Your task to perform on an android device: create a new album in the google photos Image 0: 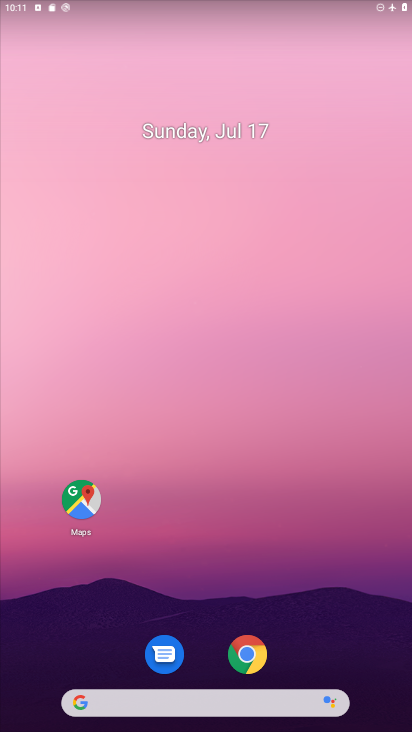
Step 0: drag from (209, 613) to (216, 111)
Your task to perform on an android device: create a new album in the google photos Image 1: 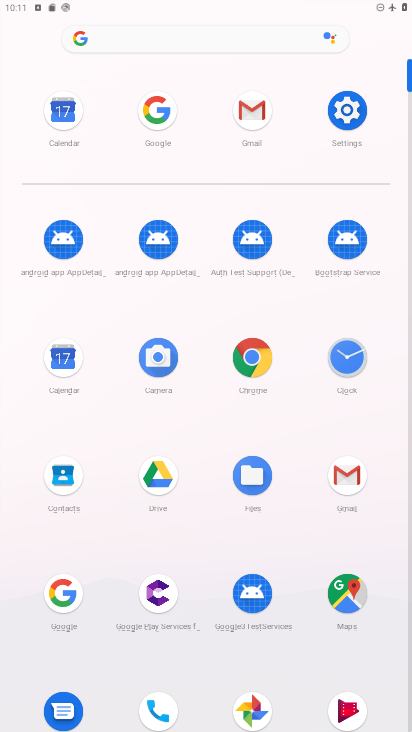
Step 1: click (247, 694)
Your task to perform on an android device: create a new album in the google photos Image 2: 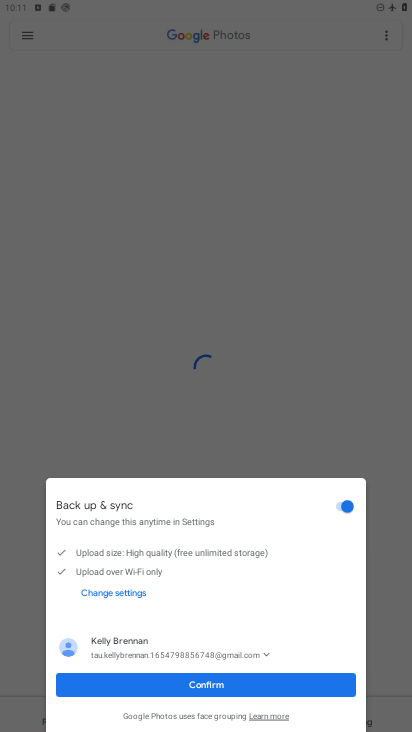
Step 2: click (175, 679)
Your task to perform on an android device: create a new album in the google photos Image 3: 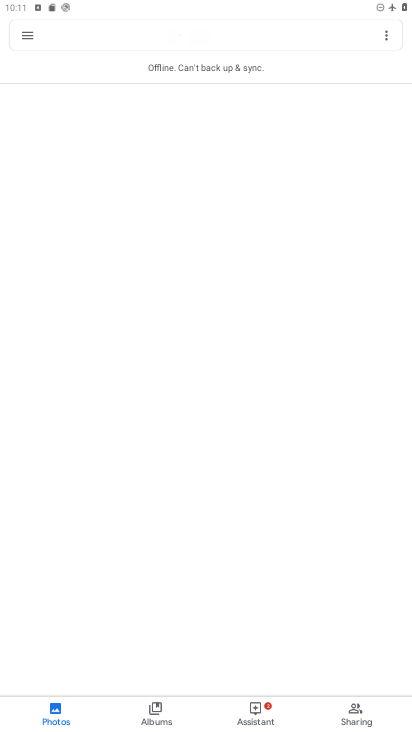
Step 3: click (379, 31)
Your task to perform on an android device: create a new album in the google photos Image 4: 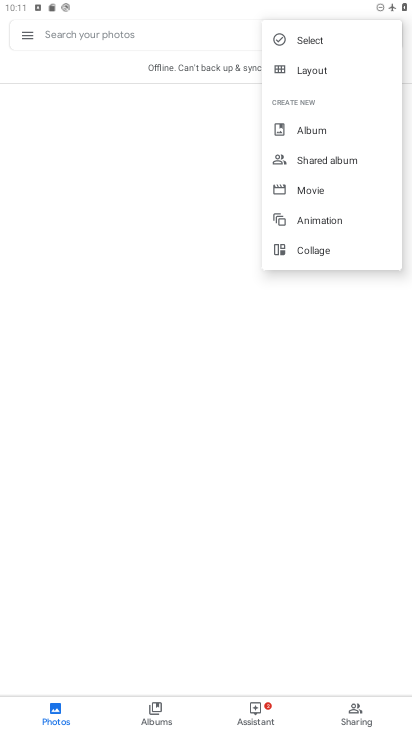
Step 4: click (326, 132)
Your task to perform on an android device: create a new album in the google photos Image 5: 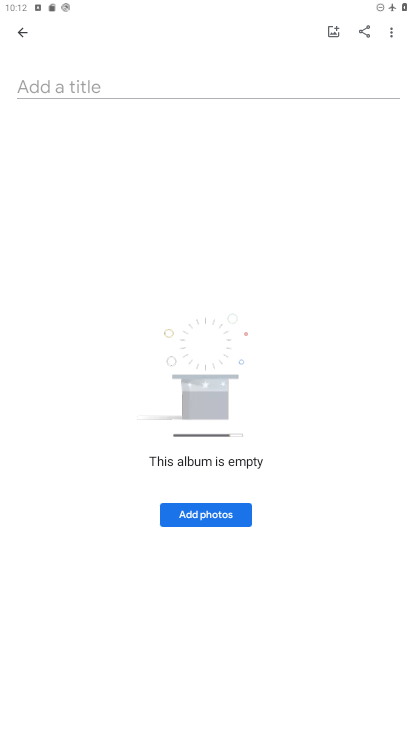
Step 5: click (58, 78)
Your task to perform on an android device: create a new album in the google photos Image 6: 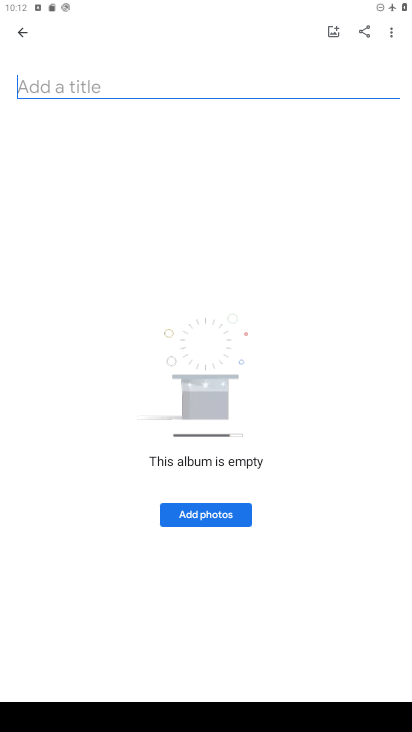
Step 6: type "dgrrdgf"
Your task to perform on an android device: create a new album in the google photos Image 7: 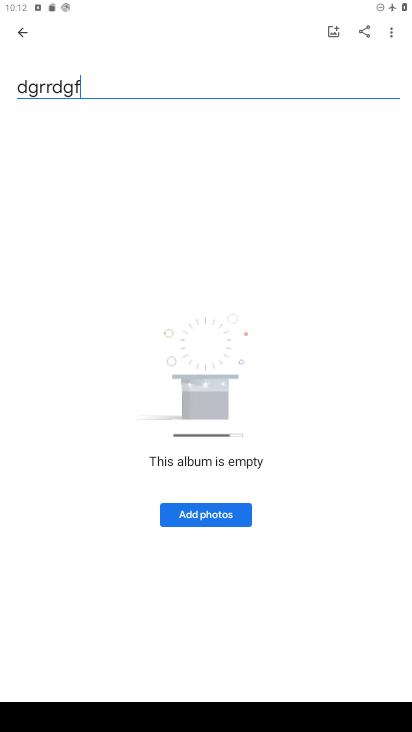
Step 7: click (237, 512)
Your task to perform on an android device: create a new album in the google photos Image 8: 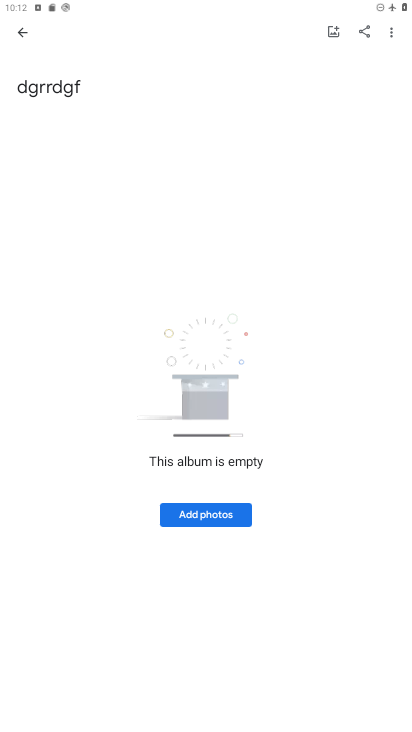
Step 8: click (209, 512)
Your task to perform on an android device: create a new album in the google photos Image 9: 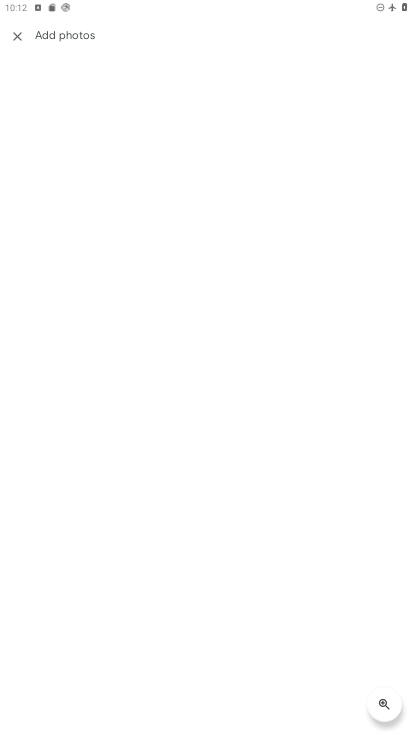
Step 9: task complete